Your task to perform on an android device: open the mobile data screen to see how much data has been used Image 0: 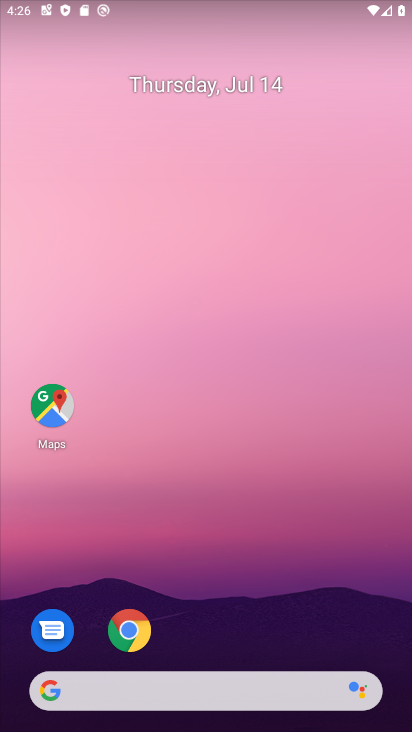
Step 0: drag from (267, 694) to (292, 4)
Your task to perform on an android device: open the mobile data screen to see how much data has been used Image 1: 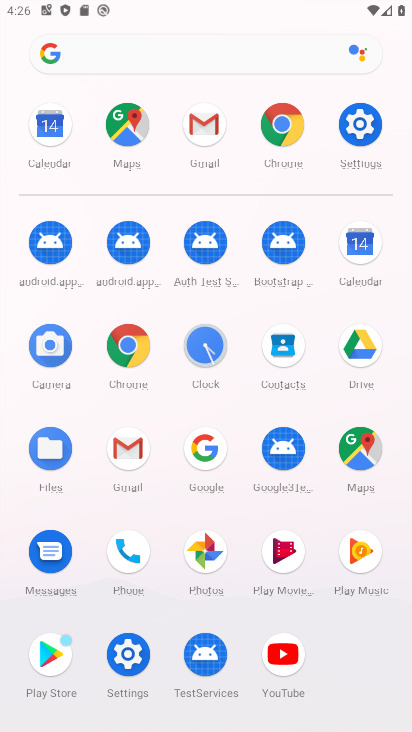
Step 1: click (363, 131)
Your task to perform on an android device: open the mobile data screen to see how much data has been used Image 2: 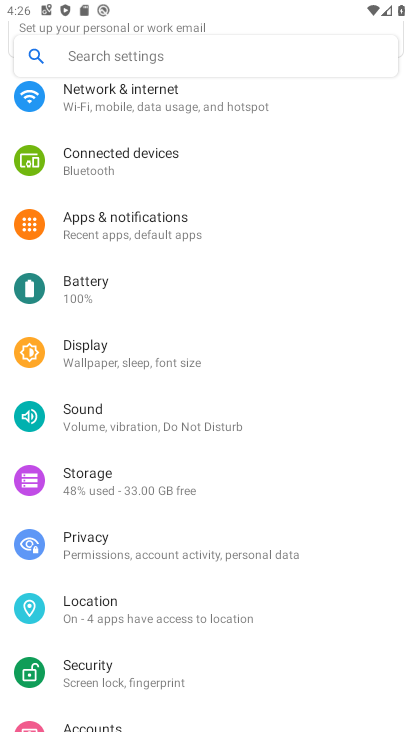
Step 2: click (182, 109)
Your task to perform on an android device: open the mobile data screen to see how much data has been used Image 3: 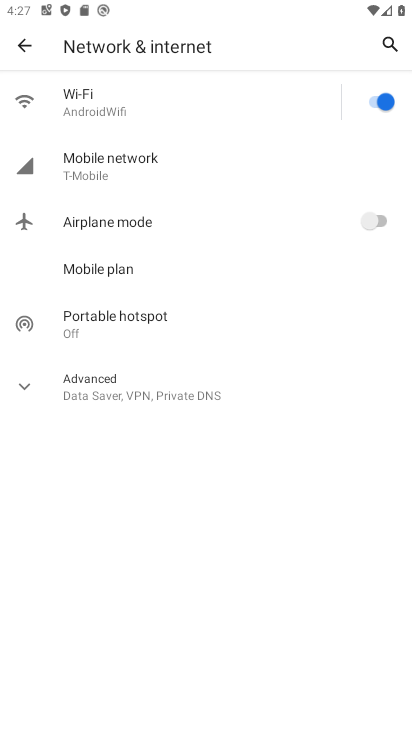
Step 3: click (133, 167)
Your task to perform on an android device: open the mobile data screen to see how much data has been used Image 4: 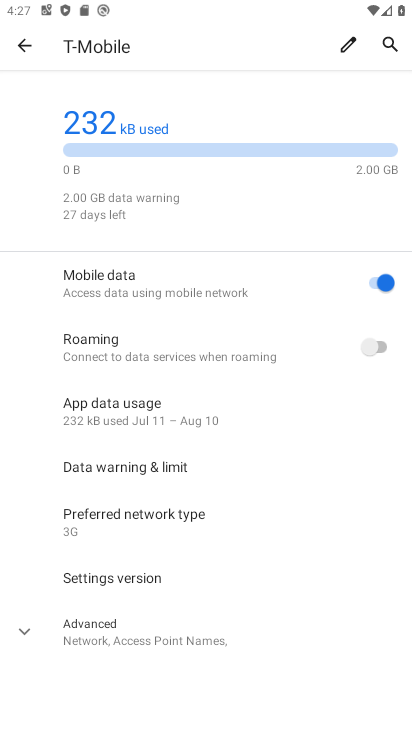
Step 4: task complete